Your task to perform on an android device: toggle show notifications on the lock screen Image 0: 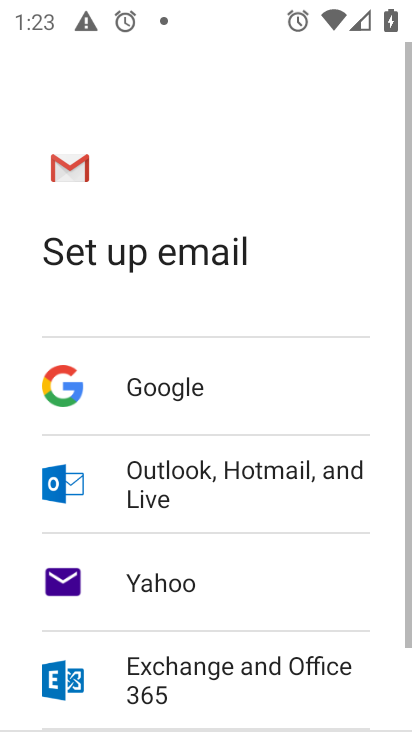
Step 0: press home button
Your task to perform on an android device: toggle show notifications on the lock screen Image 1: 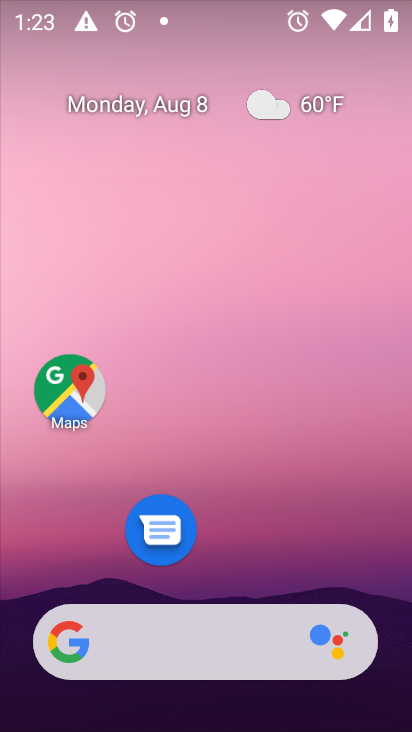
Step 1: drag from (234, 506) to (221, 84)
Your task to perform on an android device: toggle show notifications on the lock screen Image 2: 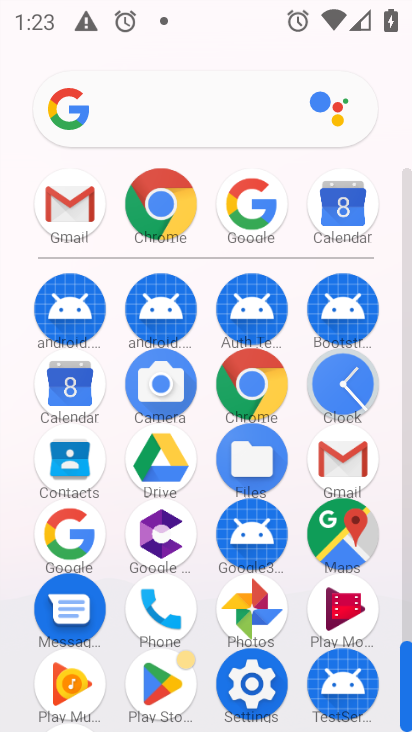
Step 2: click (251, 676)
Your task to perform on an android device: toggle show notifications on the lock screen Image 3: 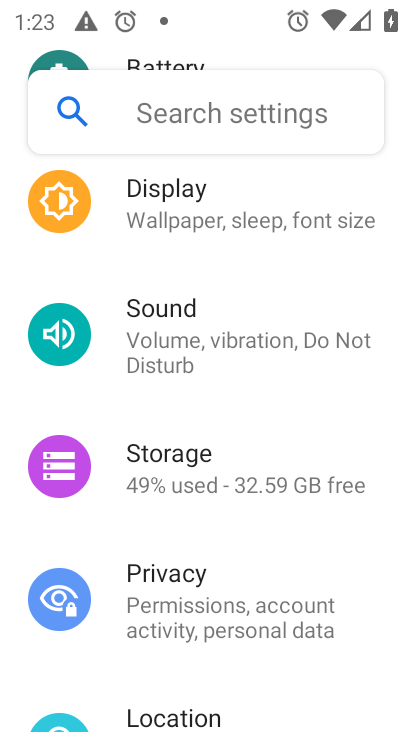
Step 3: drag from (193, 278) to (186, 460)
Your task to perform on an android device: toggle show notifications on the lock screen Image 4: 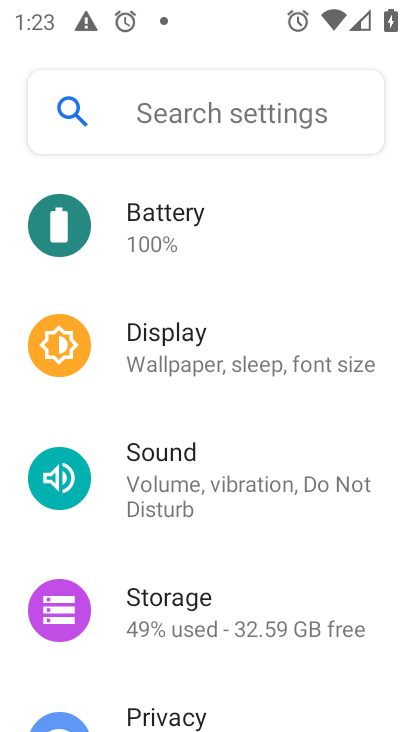
Step 4: drag from (156, 191) to (197, 498)
Your task to perform on an android device: toggle show notifications on the lock screen Image 5: 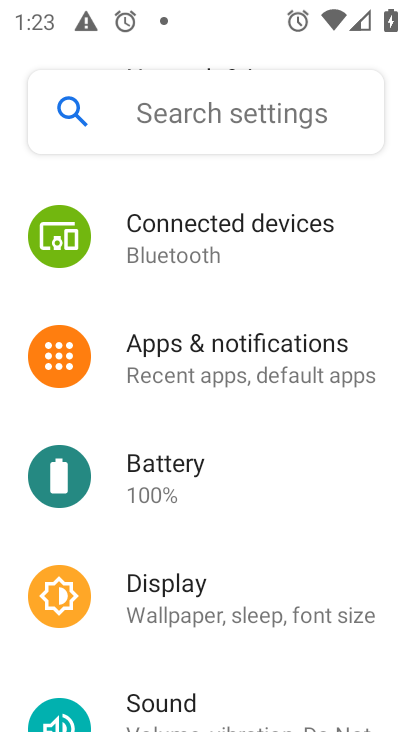
Step 5: click (261, 353)
Your task to perform on an android device: toggle show notifications on the lock screen Image 6: 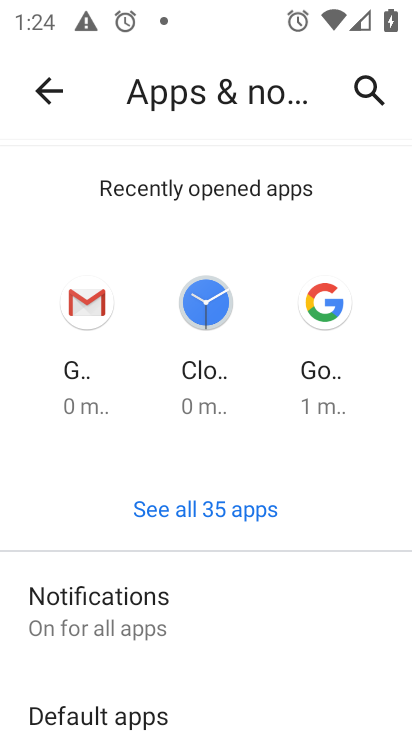
Step 6: click (78, 610)
Your task to perform on an android device: toggle show notifications on the lock screen Image 7: 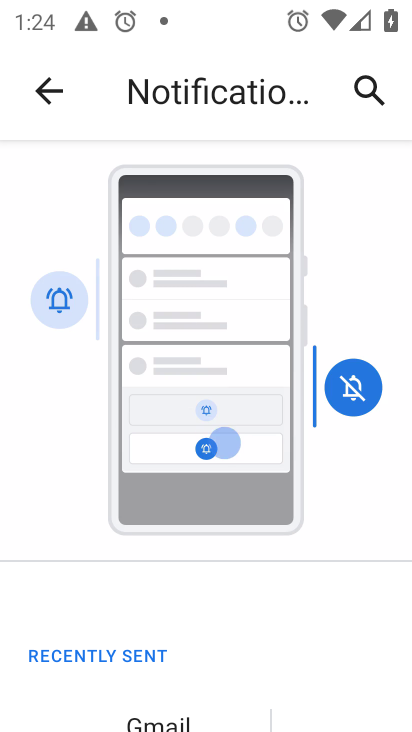
Step 7: drag from (181, 705) to (202, 360)
Your task to perform on an android device: toggle show notifications on the lock screen Image 8: 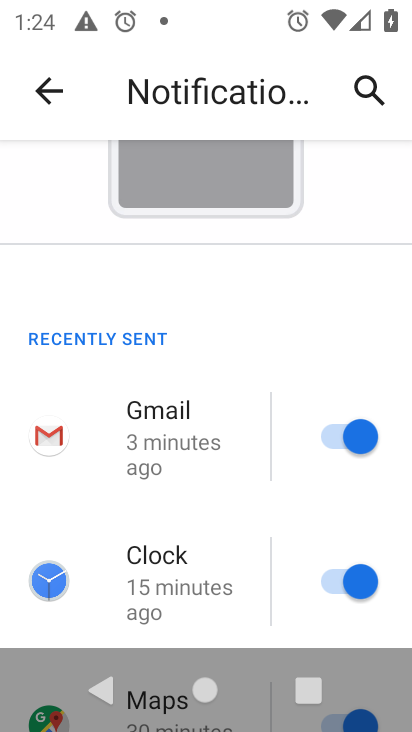
Step 8: drag from (209, 620) to (211, 329)
Your task to perform on an android device: toggle show notifications on the lock screen Image 9: 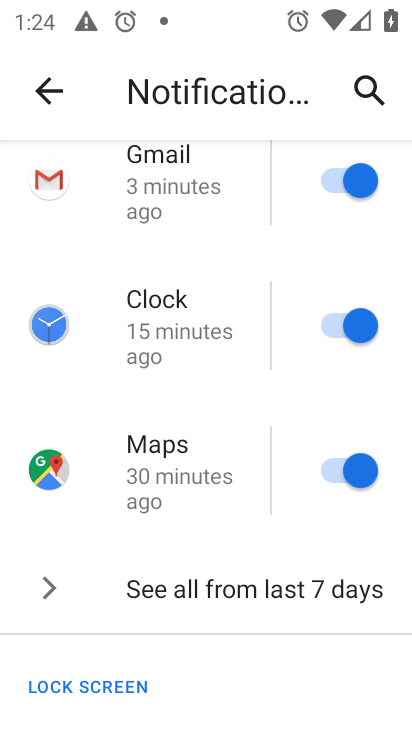
Step 9: drag from (217, 687) to (217, 318)
Your task to perform on an android device: toggle show notifications on the lock screen Image 10: 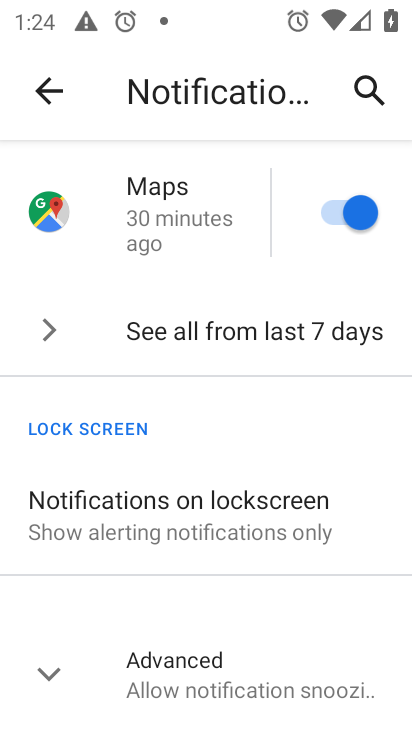
Step 10: click (155, 525)
Your task to perform on an android device: toggle show notifications on the lock screen Image 11: 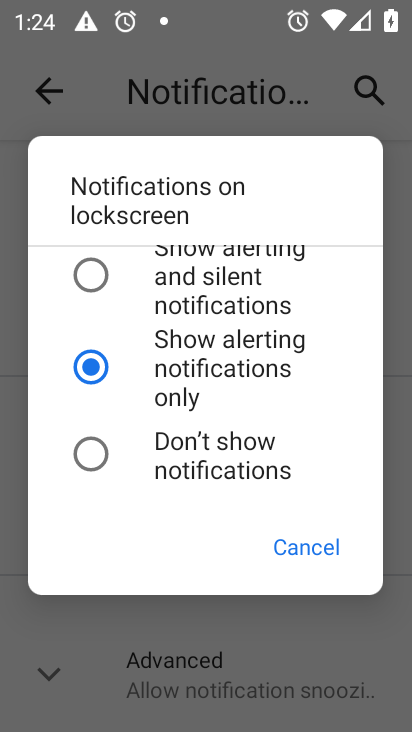
Step 11: click (89, 277)
Your task to perform on an android device: toggle show notifications on the lock screen Image 12: 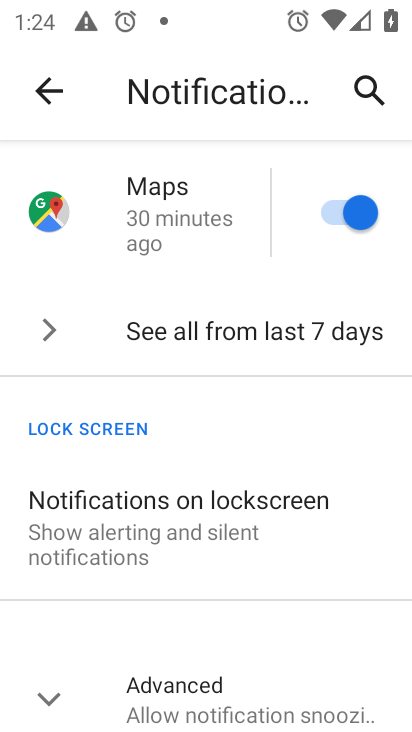
Step 12: task complete